Your task to perform on an android device: turn off picture-in-picture Image 0: 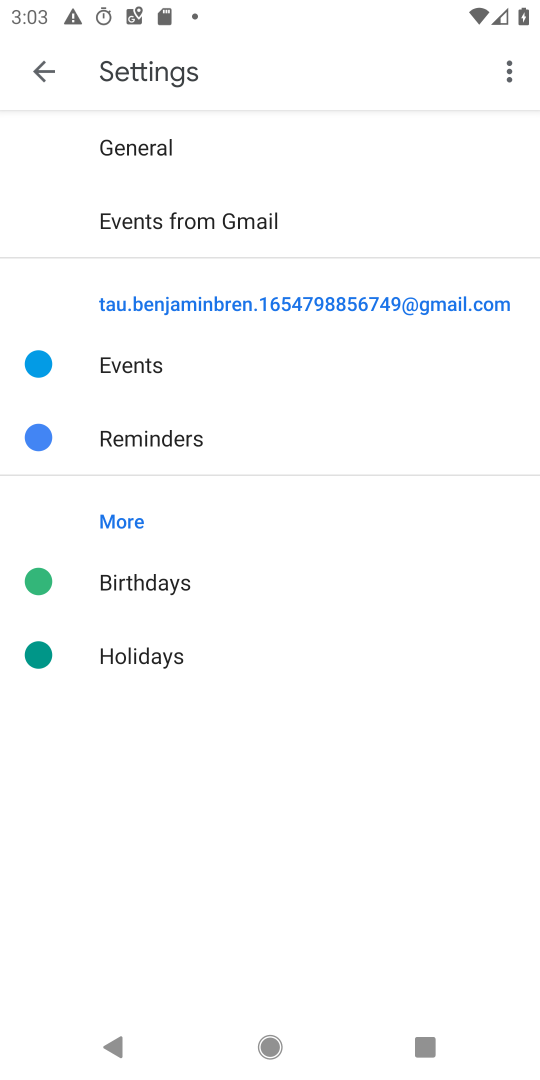
Step 0: press home button
Your task to perform on an android device: turn off picture-in-picture Image 1: 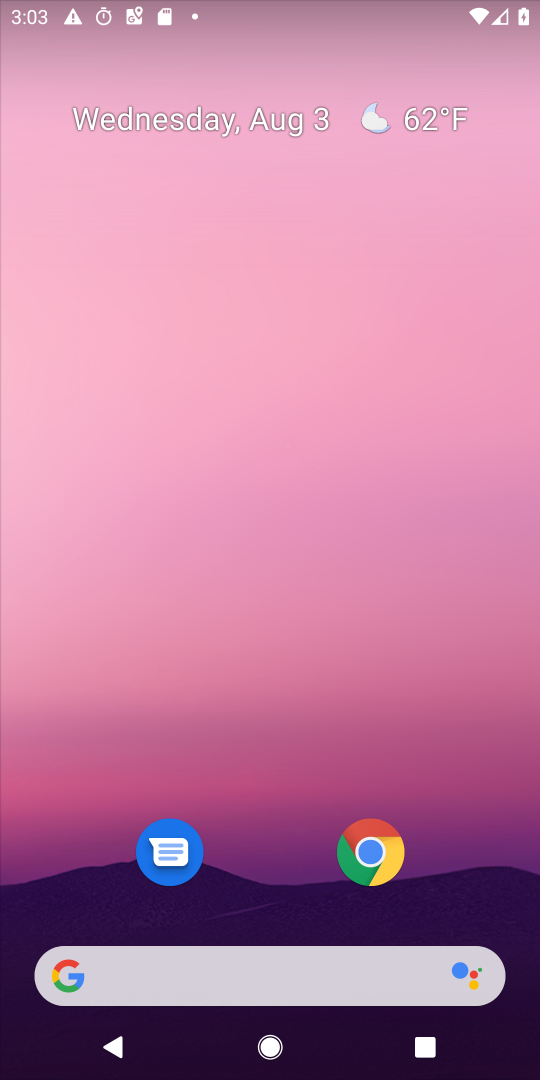
Step 1: drag from (478, 803) to (231, 48)
Your task to perform on an android device: turn off picture-in-picture Image 2: 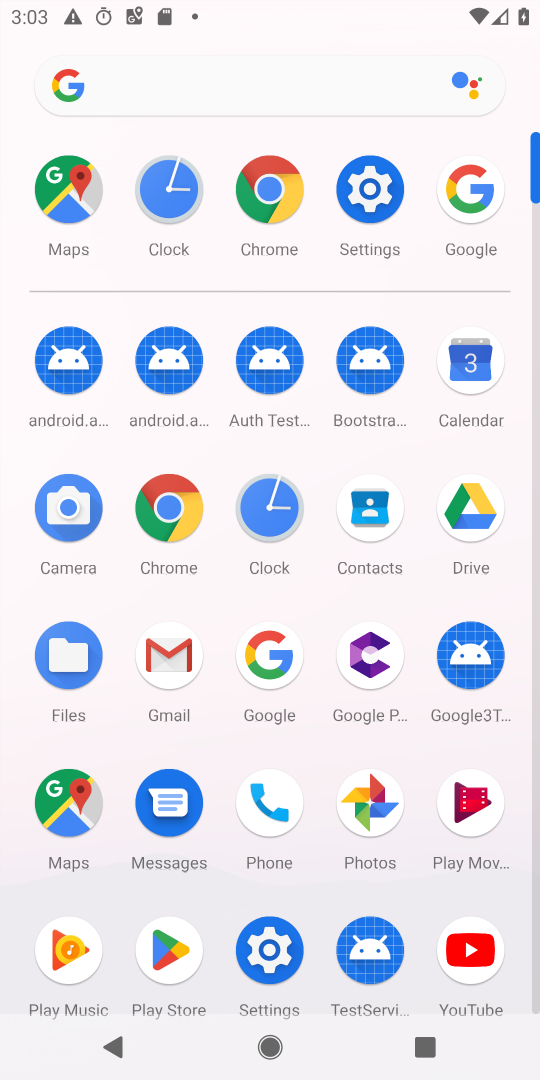
Step 2: click (184, 491)
Your task to perform on an android device: turn off picture-in-picture Image 3: 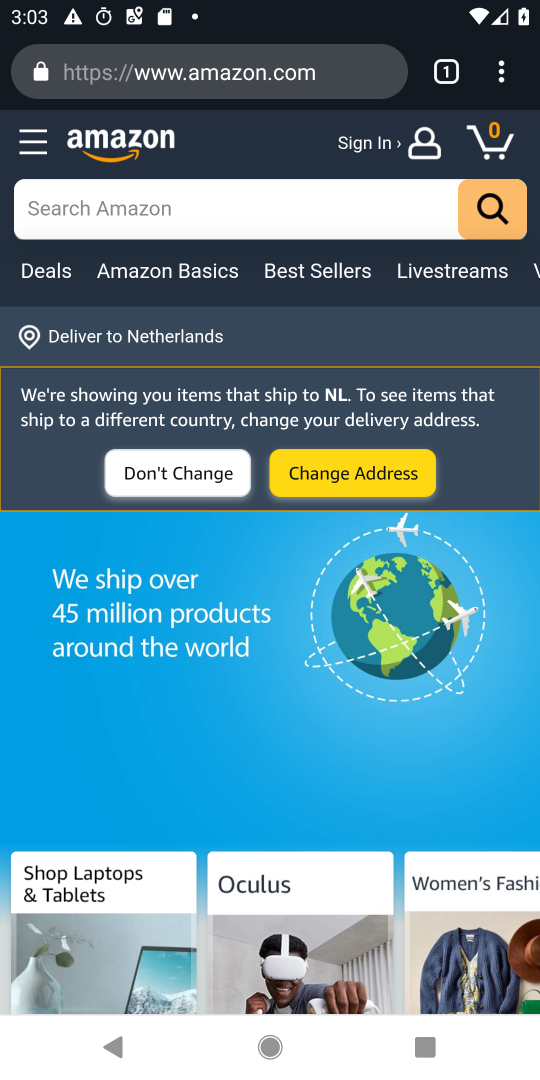
Step 3: task complete